Your task to perform on an android device: delete location history Image 0: 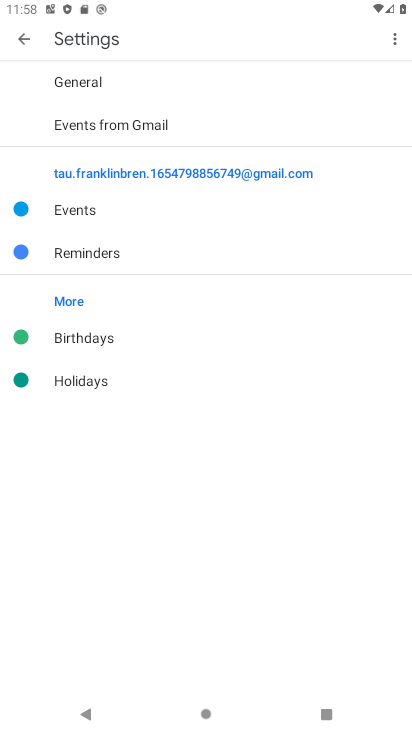
Step 0: press home button
Your task to perform on an android device: delete location history Image 1: 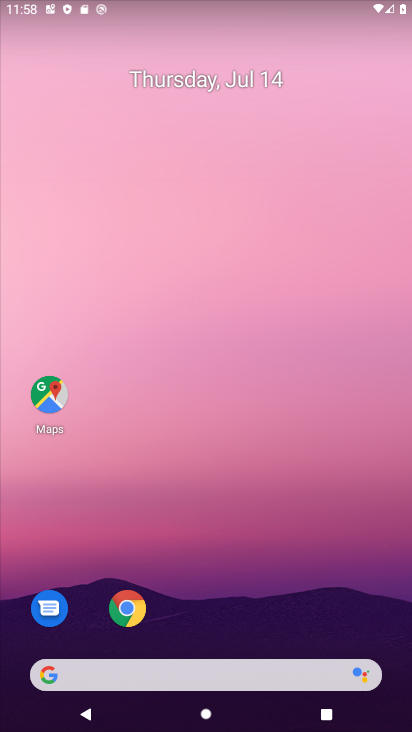
Step 1: drag from (244, 656) to (294, 8)
Your task to perform on an android device: delete location history Image 2: 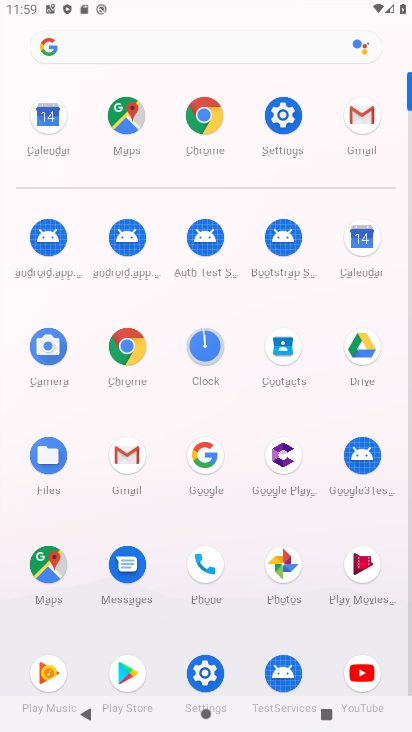
Step 2: click (57, 565)
Your task to perform on an android device: delete location history Image 3: 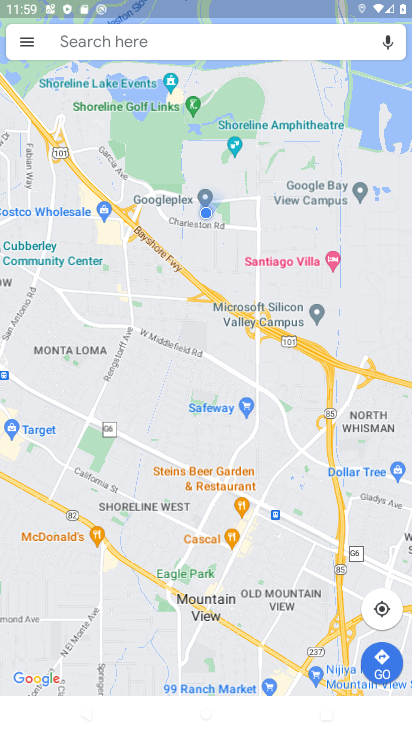
Step 3: click (25, 40)
Your task to perform on an android device: delete location history Image 4: 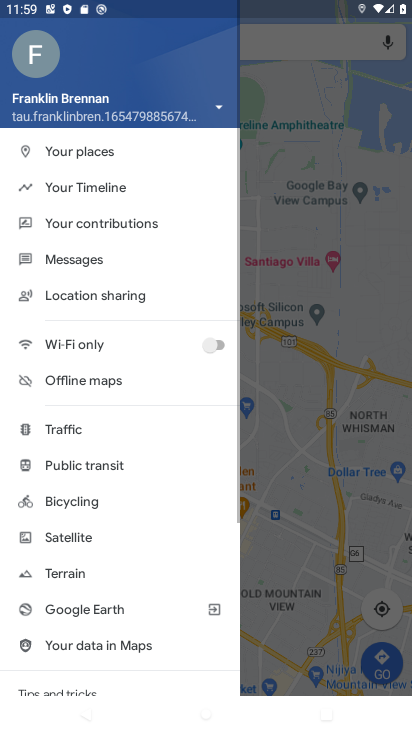
Step 4: click (57, 191)
Your task to perform on an android device: delete location history Image 5: 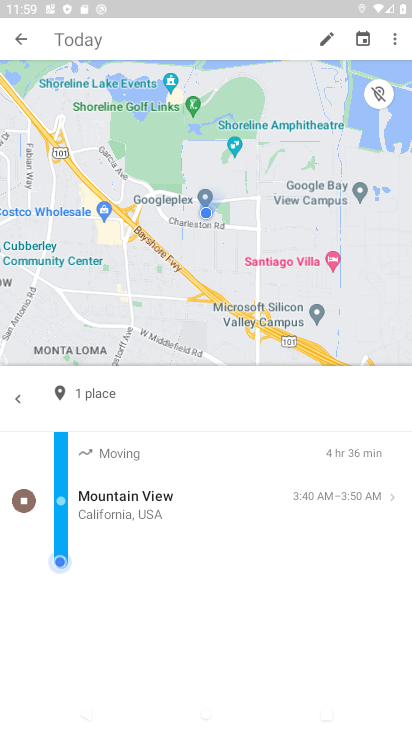
Step 5: click (395, 40)
Your task to perform on an android device: delete location history Image 6: 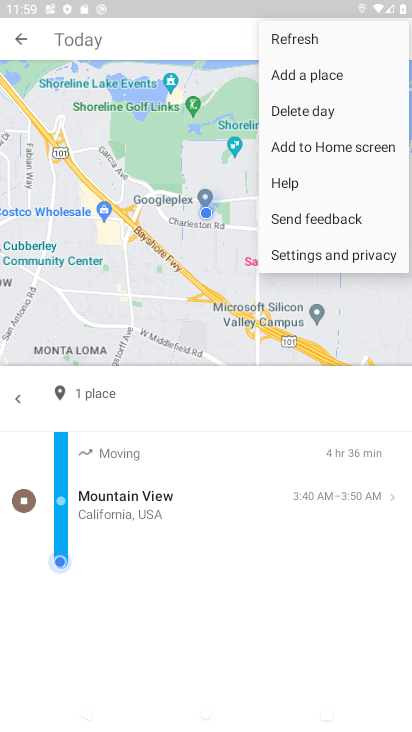
Step 6: click (297, 250)
Your task to perform on an android device: delete location history Image 7: 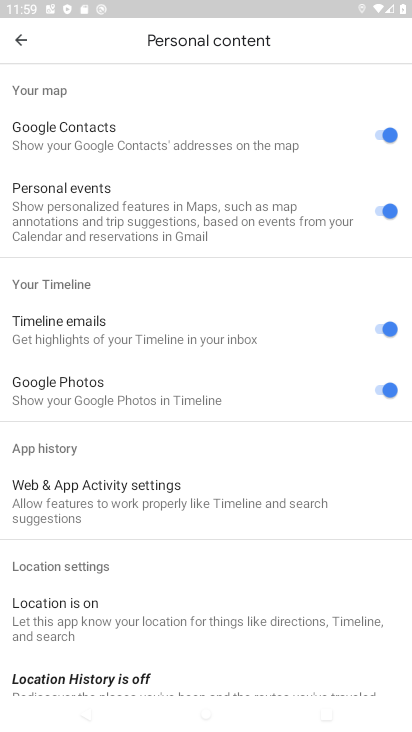
Step 7: drag from (230, 479) to (260, 10)
Your task to perform on an android device: delete location history Image 8: 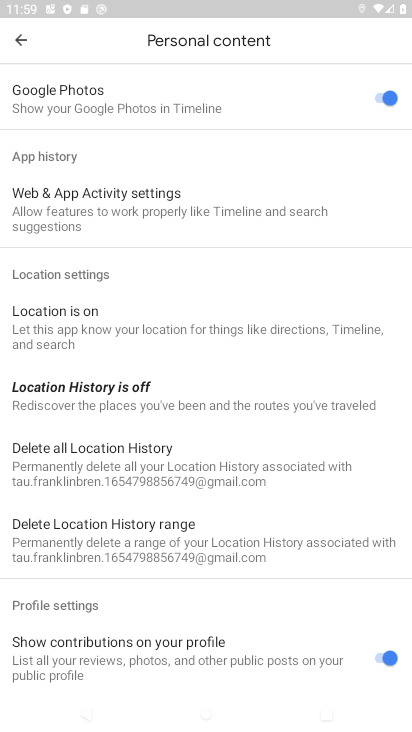
Step 8: click (173, 467)
Your task to perform on an android device: delete location history Image 9: 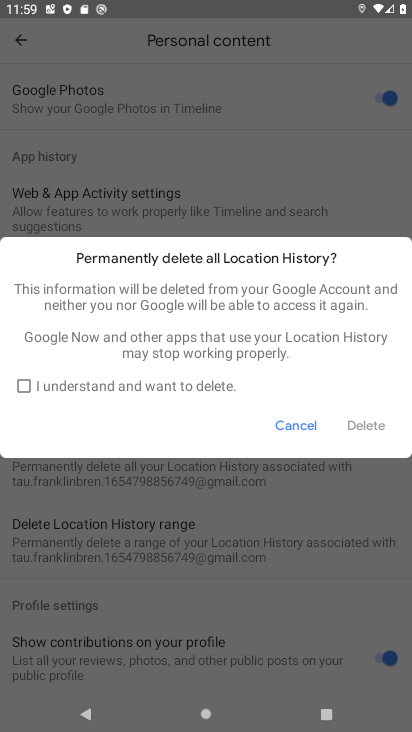
Step 9: click (19, 387)
Your task to perform on an android device: delete location history Image 10: 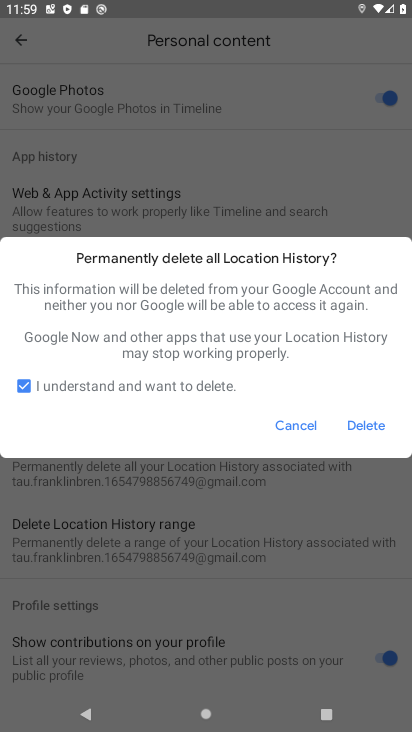
Step 10: click (374, 426)
Your task to perform on an android device: delete location history Image 11: 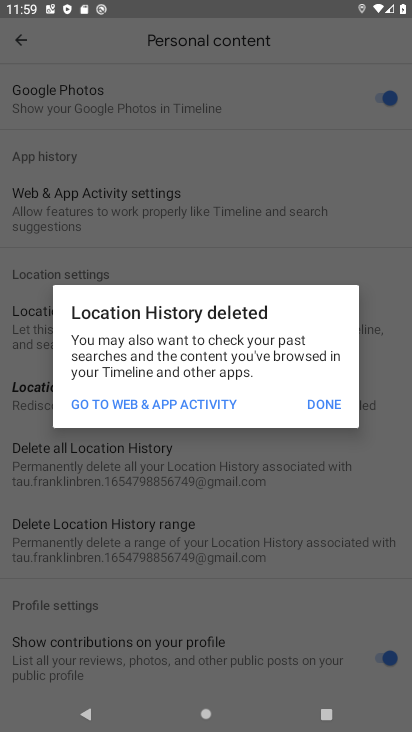
Step 11: task complete